Your task to perform on an android device: Play the last video I watched on Youtube Image 0: 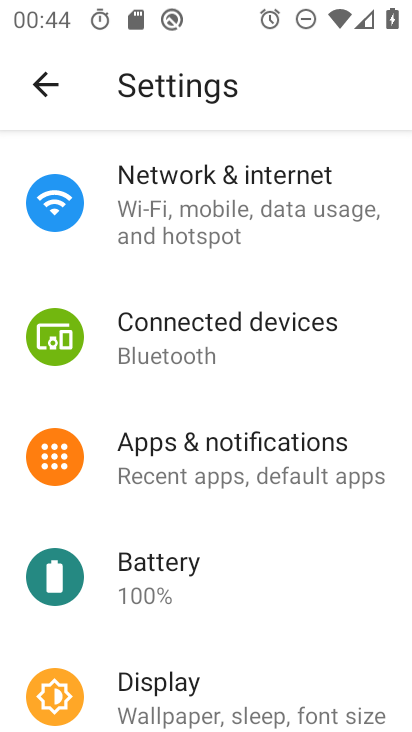
Step 0: press home button
Your task to perform on an android device: Play the last video I watched on Youtube Image 1: 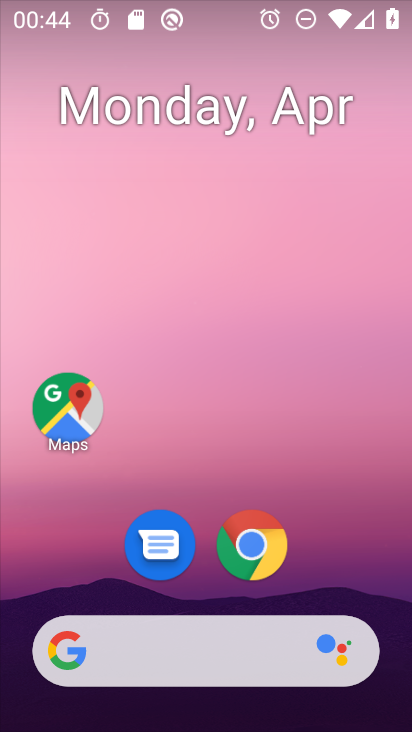
Step 1: drag from (331, 467) to (348, 201)
Your task to perform on an android device: Play the last video I watched on Youtube Image 2: 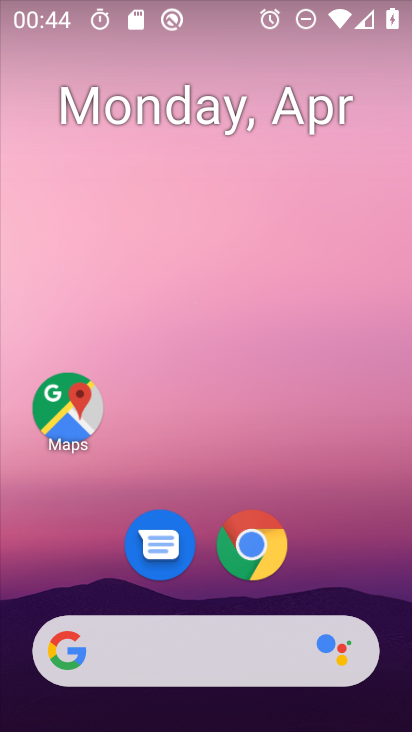
Step 2: drag from (362, 476) to (361, 198)
Your task to perform on an android device: Play the last video I watched on Youtube Image 3: 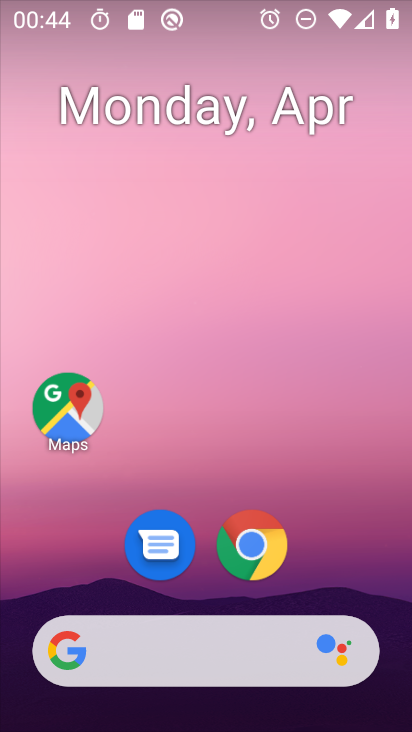
Step 3: drag from (333, 504) to (319, 158)
Your task to perform on an android device: Play the last video I watched on Youtube Image 4: 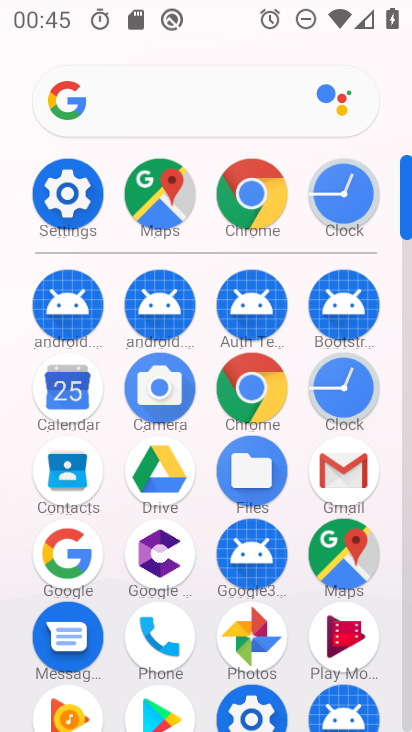
Step 4: drag from (263, 624) to (277, 189)
Your task to perform on an android device: Play the last video I watched on Youtube Image 5: 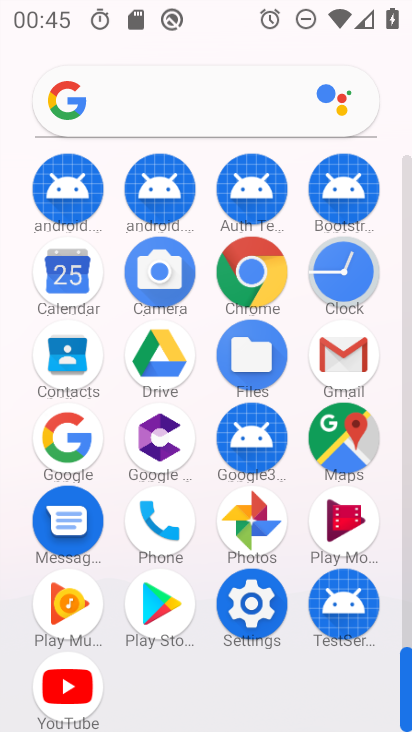
Step 5: click (73, 693)
Your task to perform on an android device: Play the last video I watched on Youtube Image 6: 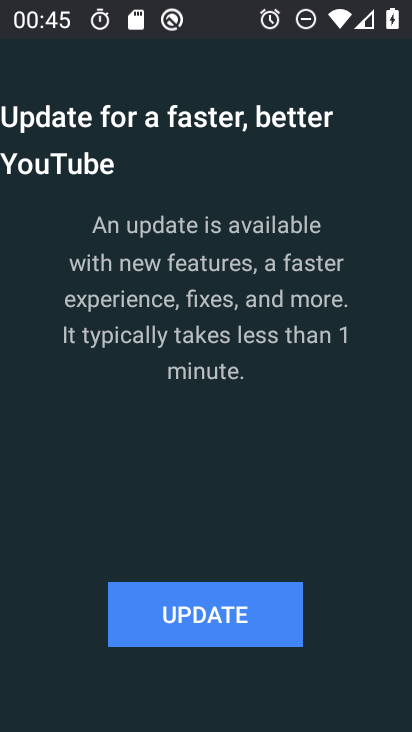
Step 6: task complete